Your task to perform on an android device: Do I have any events tomorrow? Image 0: 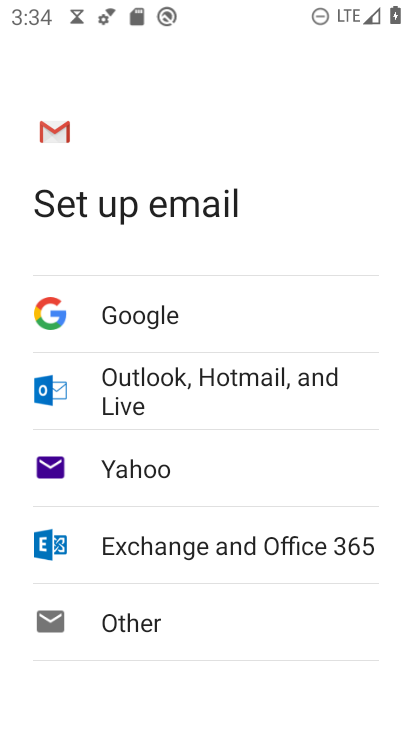
Step 0: press home button
Your task to perform on an android device: Do I have any events tomorrow? Image 1: 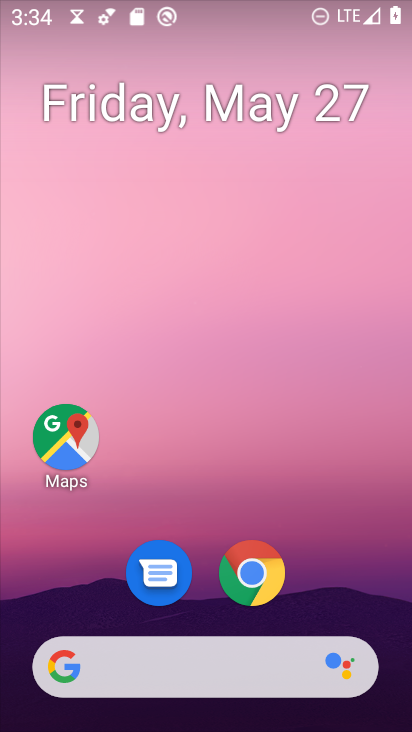
Step 1: drag from (321, 606) to (311, 45)
Your task to perform on an android device: Do I have any events tomorrow? Image 2: 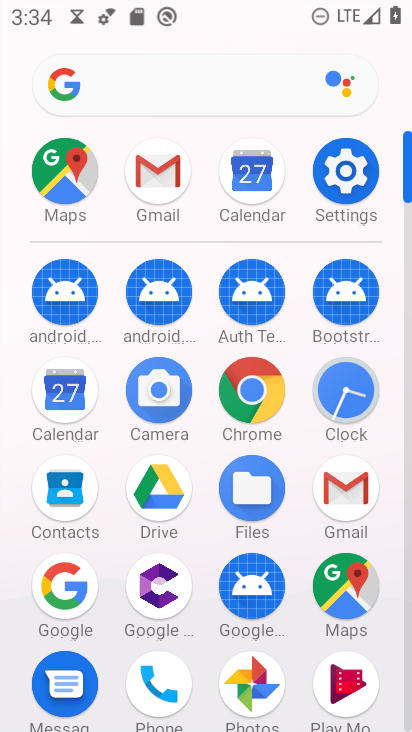
Step 2: click (74, 393)
Your task to perform on an android device: Do I have any events tomorrow? Image 3: 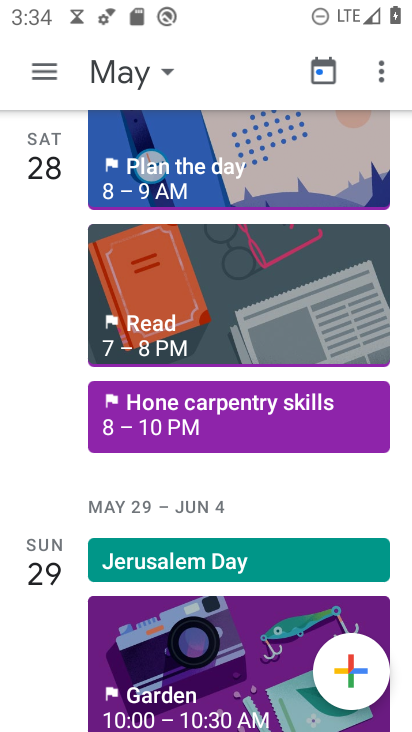
Step 3: click (152, 69)
Your task to perform on an android device: Do I have any events tomorrow? Image 4: 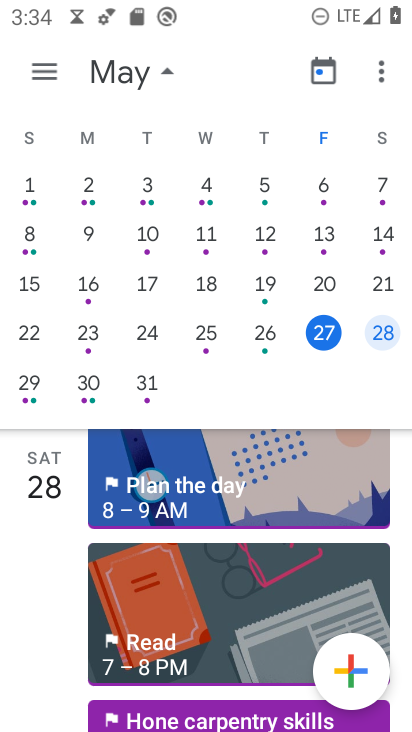
Step 4: click (390, 327)
Your task to perform on an android device: Do I have any events tomorrow? Image 5: 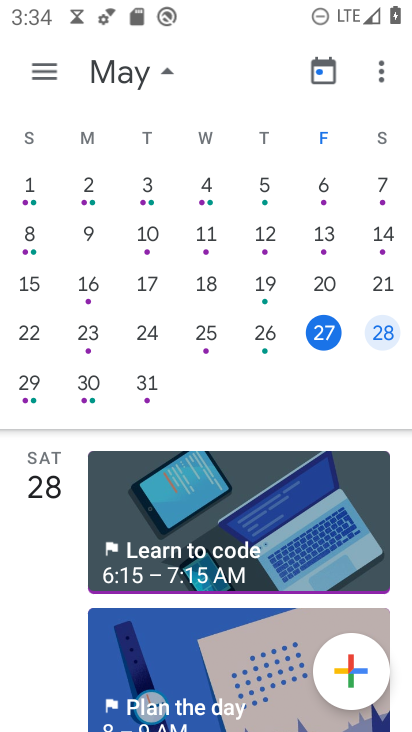
Step 5: task complete